Your task to perform on an android device: Open Android settings Image 0: 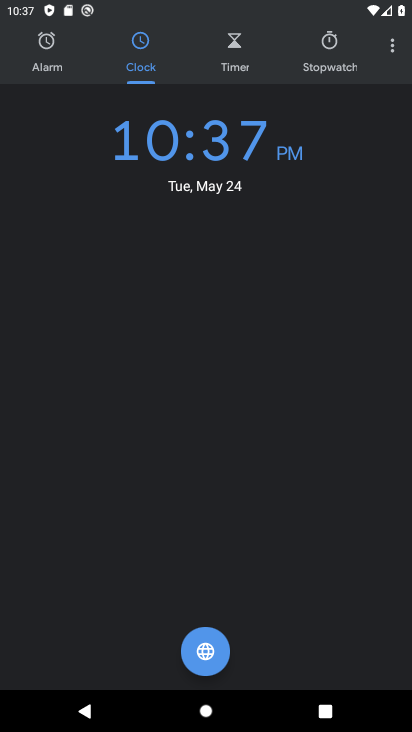
Step 0: press home button
Your task to perform on an android device: Open Android settings Image 1: 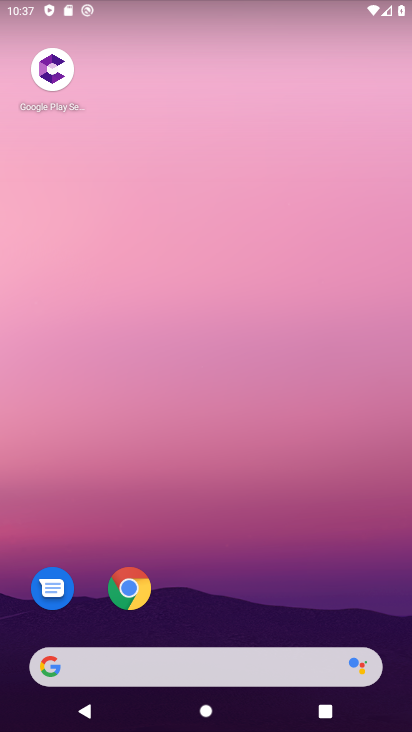
Step 1: drag from (235, 619) to (204, 51)
Your task to perform on an android device: Open Android settings Image 2: 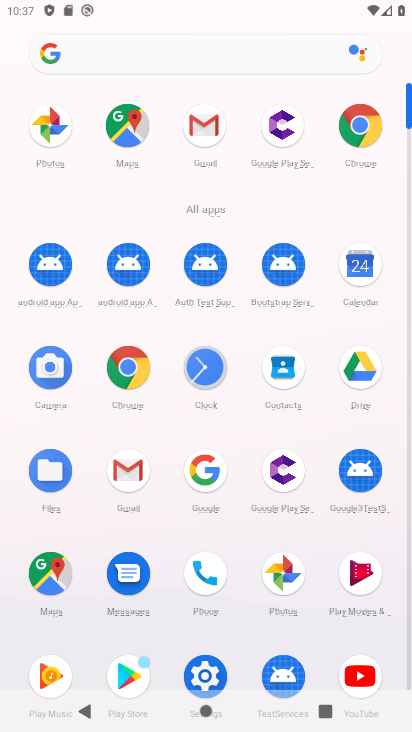
Step 2: click (206, 666)
Your task to perform on an android device: Open Android settings Image 3: 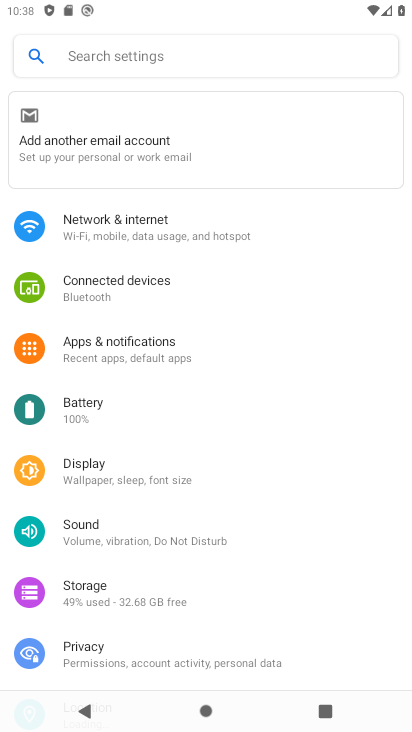
Step 3: task complete